Your task to perform on an android device: Clear the shopping cart on bestbuy.com. Add macbook to the cart on bestbuy.com, then select checkout. Image 0: 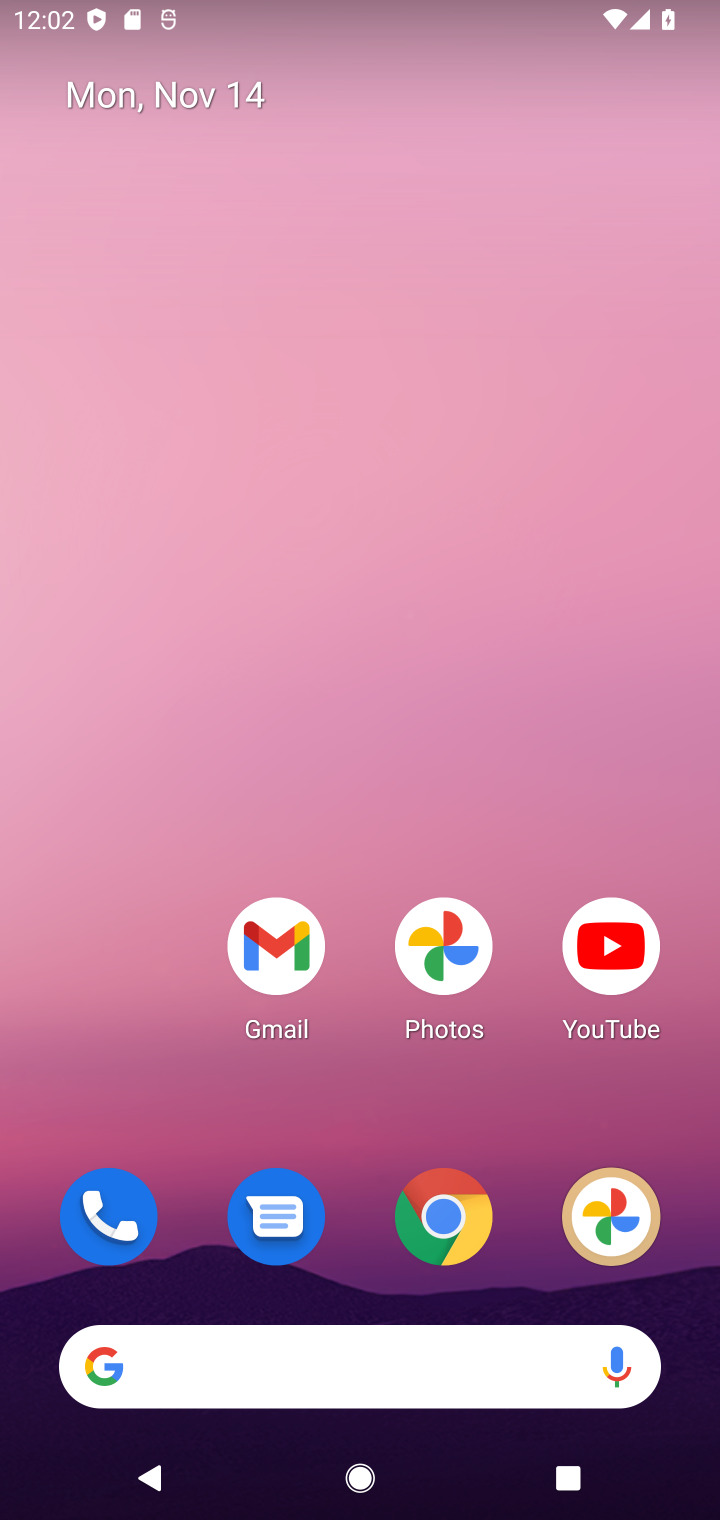
Step 0: click (444, 1223)
Your task to perform on an android device: Clear the shopping cart on bestbuy.com. Add macbook to the cart on bestbuy.com, then select checkout. Image 1: 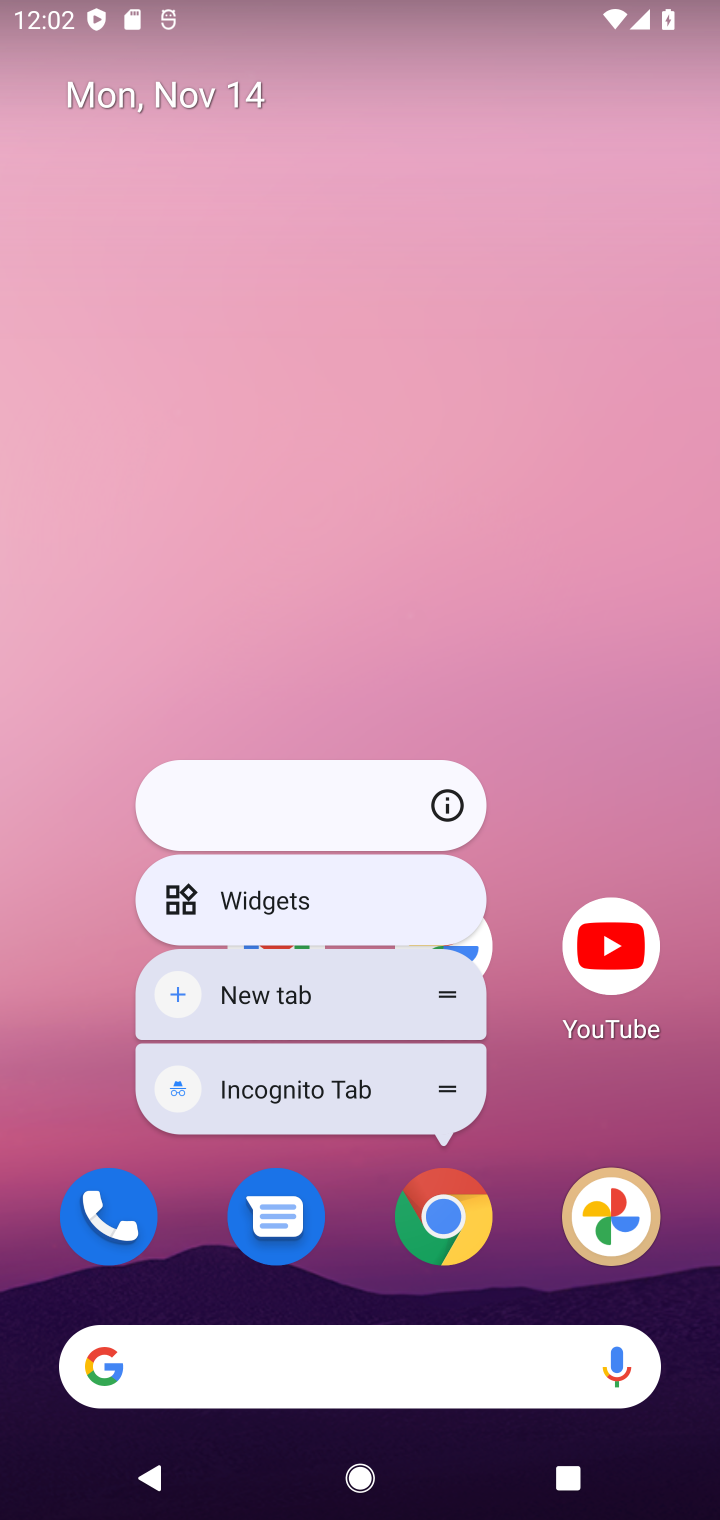
Step 1: click (457, 1235)
Your task to perform on an android device: Clear the shopping cart on bestbuy.com. Add macbook to the cart on bestbuy.com, then select checkout. Image 2: 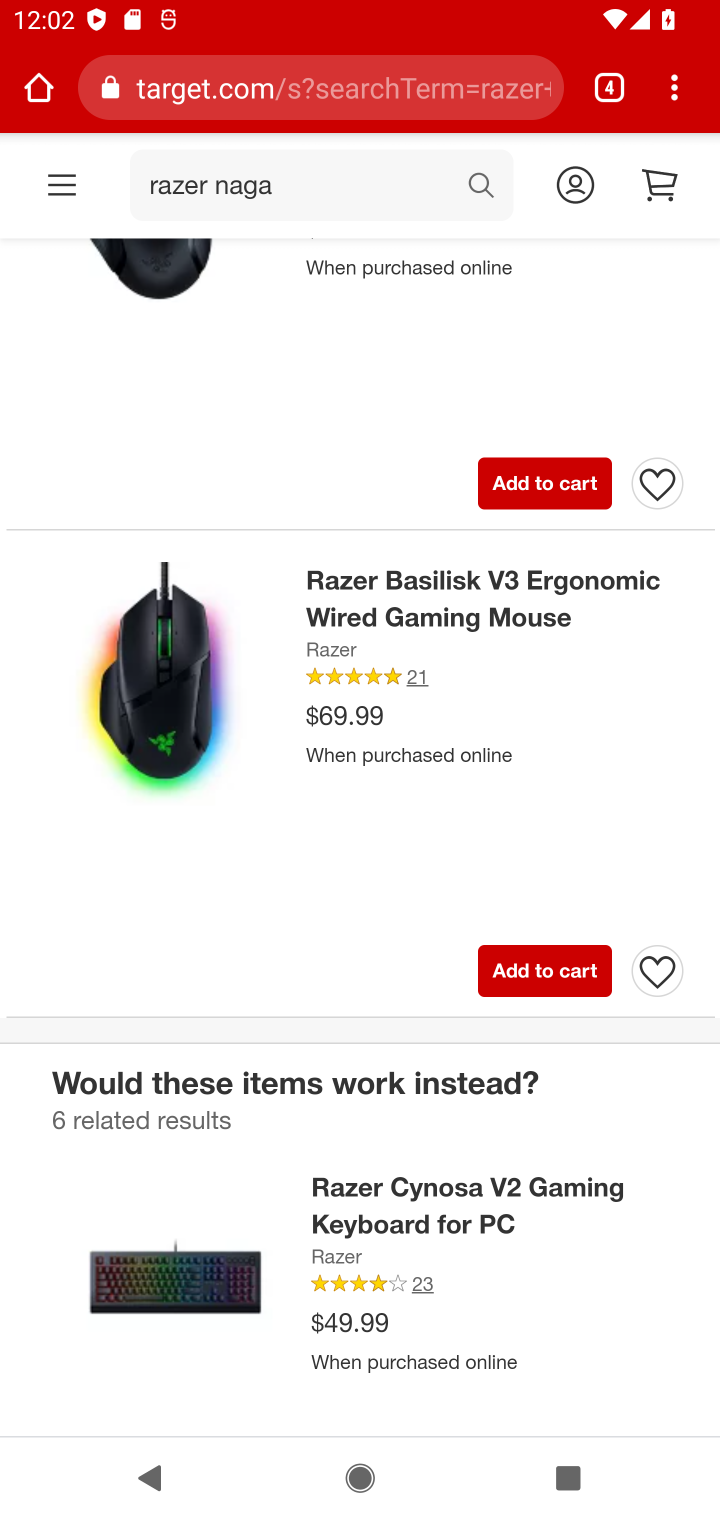
Step 2: click (617, 94)
Your task to perform on an android device: Clear the shopping cart on bestbuy.com. Add macbook to the cart on bestbuy.com, then select checkout. Image 3: 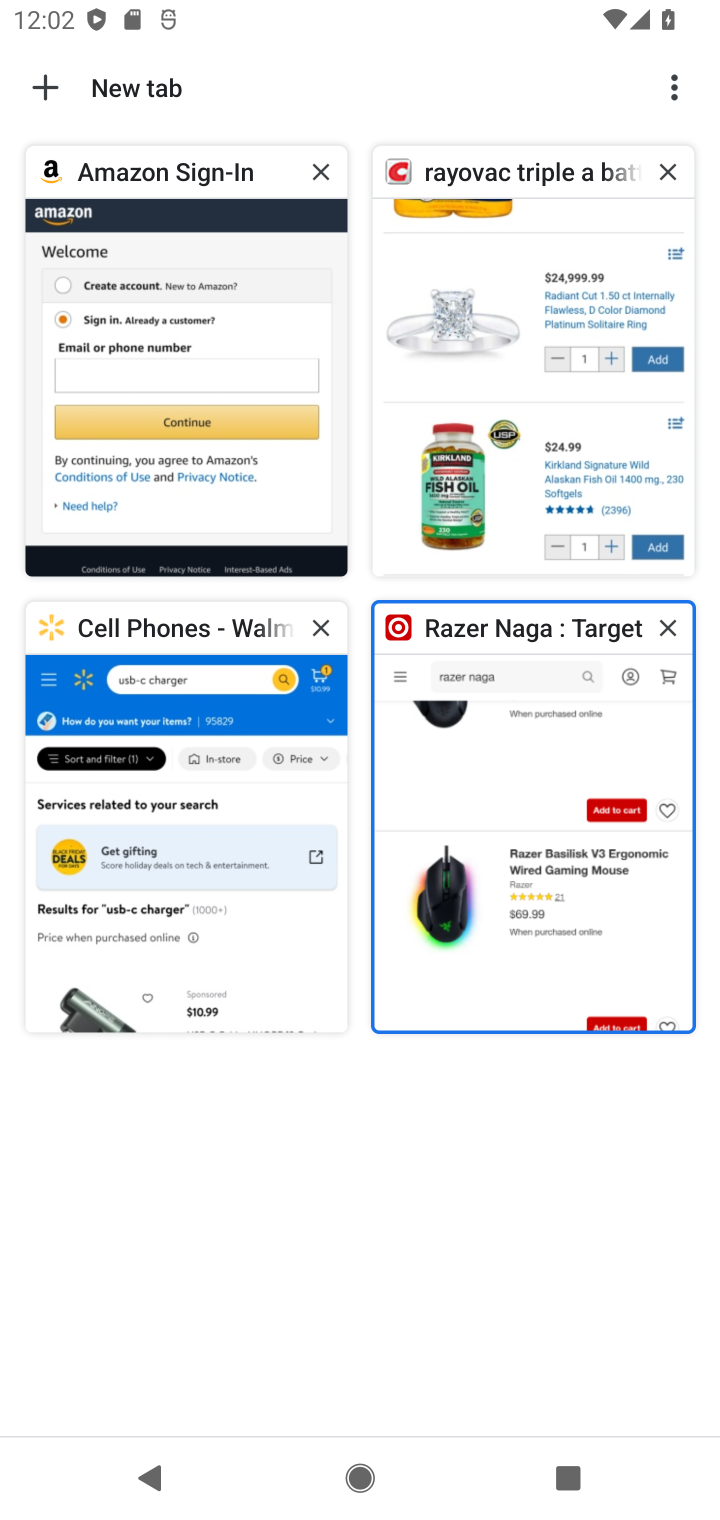
Step 3: click (44, 88)
Your task to perform on an android device: Clear the shopping cart on bestbuy.com. Add macbook to the cart on bestbuy.com, then select checkout. Image 4: 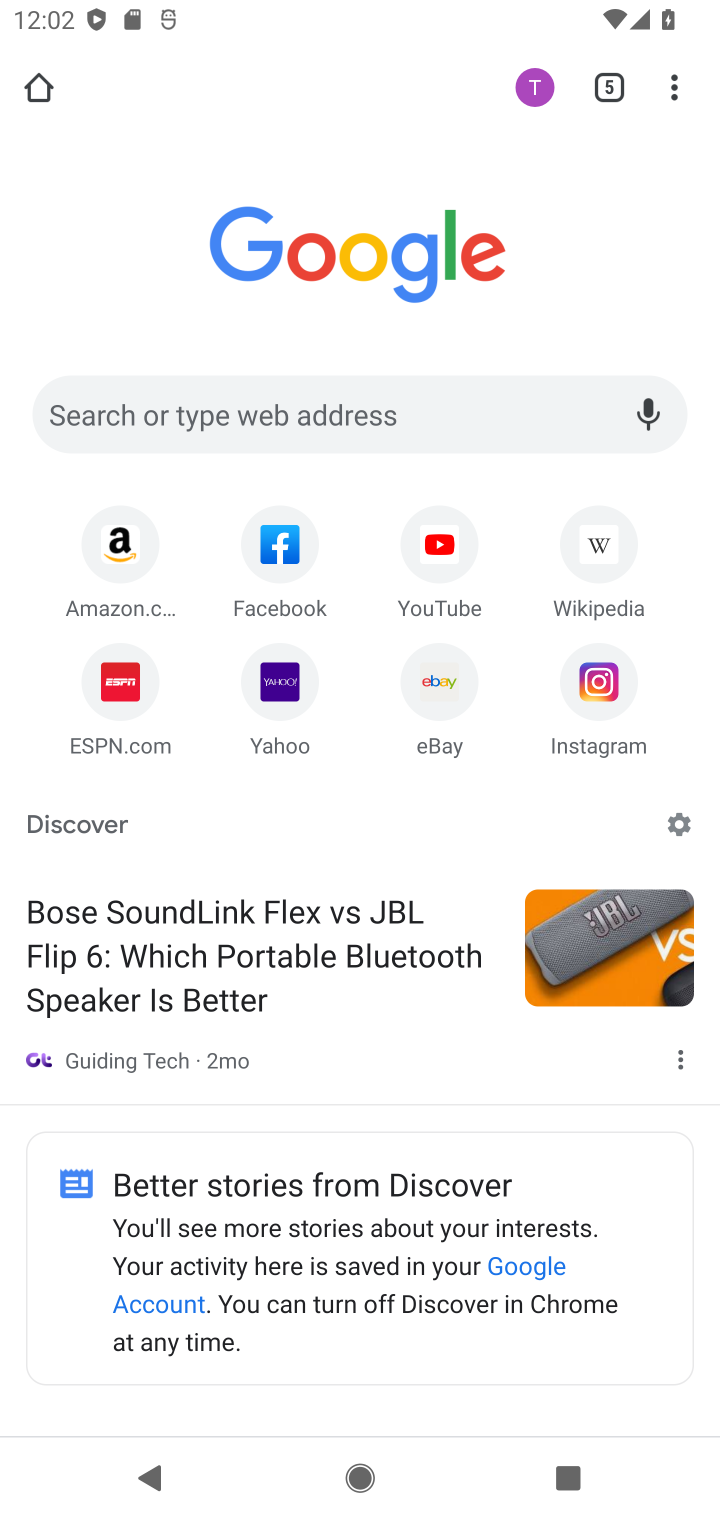
Step 4: click (136, 421)
Your task to perform on an android device: Clear the shopping cart on bestbuy.com. Add macbook to the cart on bestbuy.com, then select checkout. Image 5: 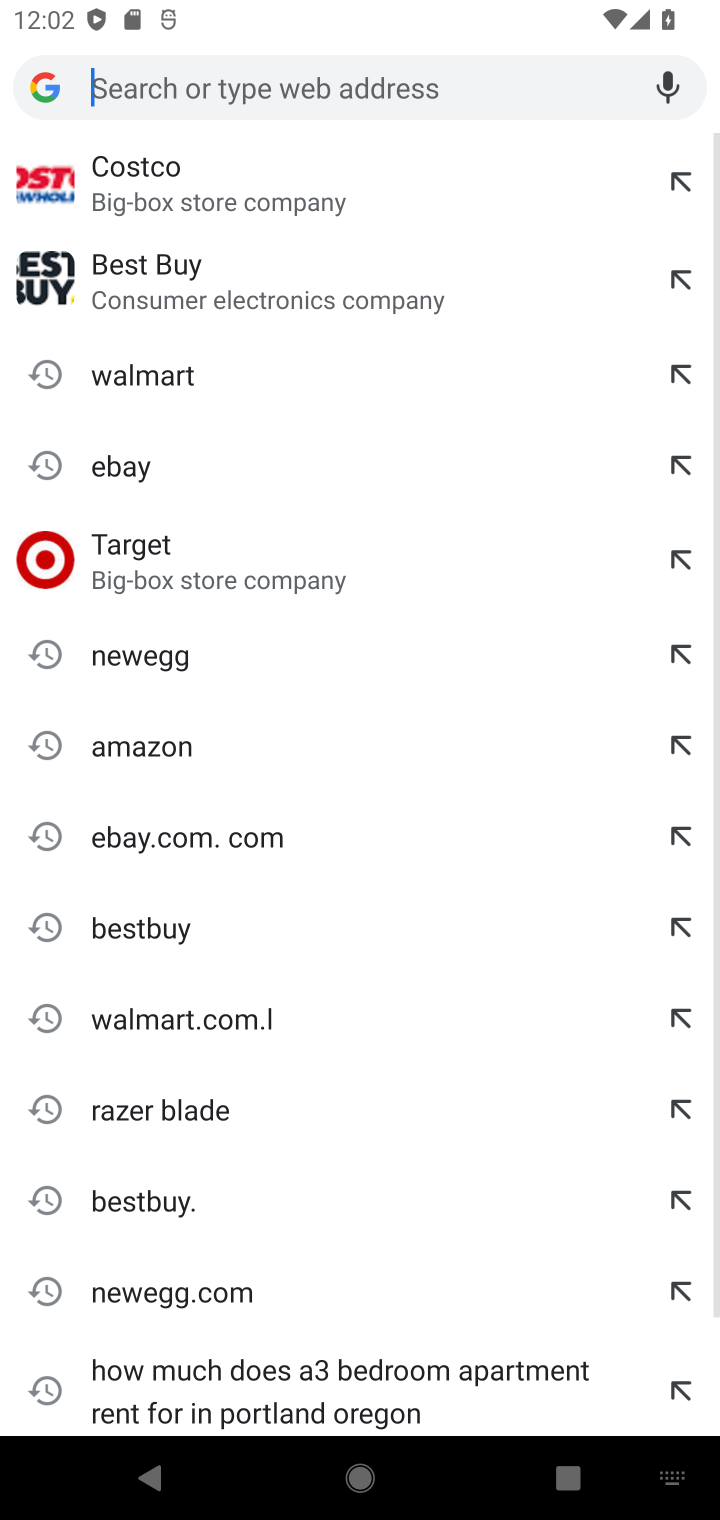
Step 5: click (149, 926)
Your task to perform on an android device: Clear the shopping cart on bestbuy.com. Add macbook to the cart on bestbuy.com, then select checkout. Image 6: 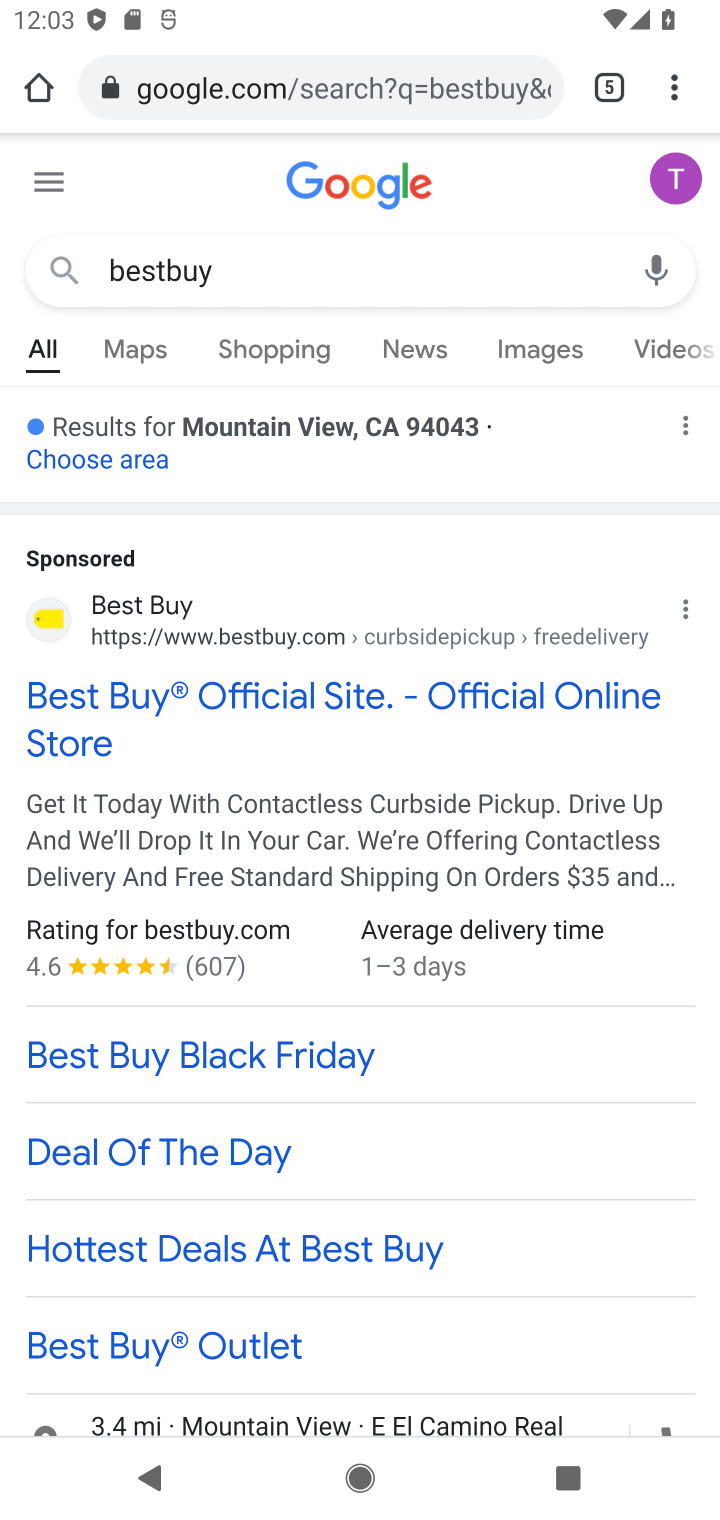
Step 6: click (250, 694)
Your task to perform on an android device: Clear the shopping cart on bestbuy.com. Add macbook to the cart on bestbuy.com, then select checkout. Image 7: 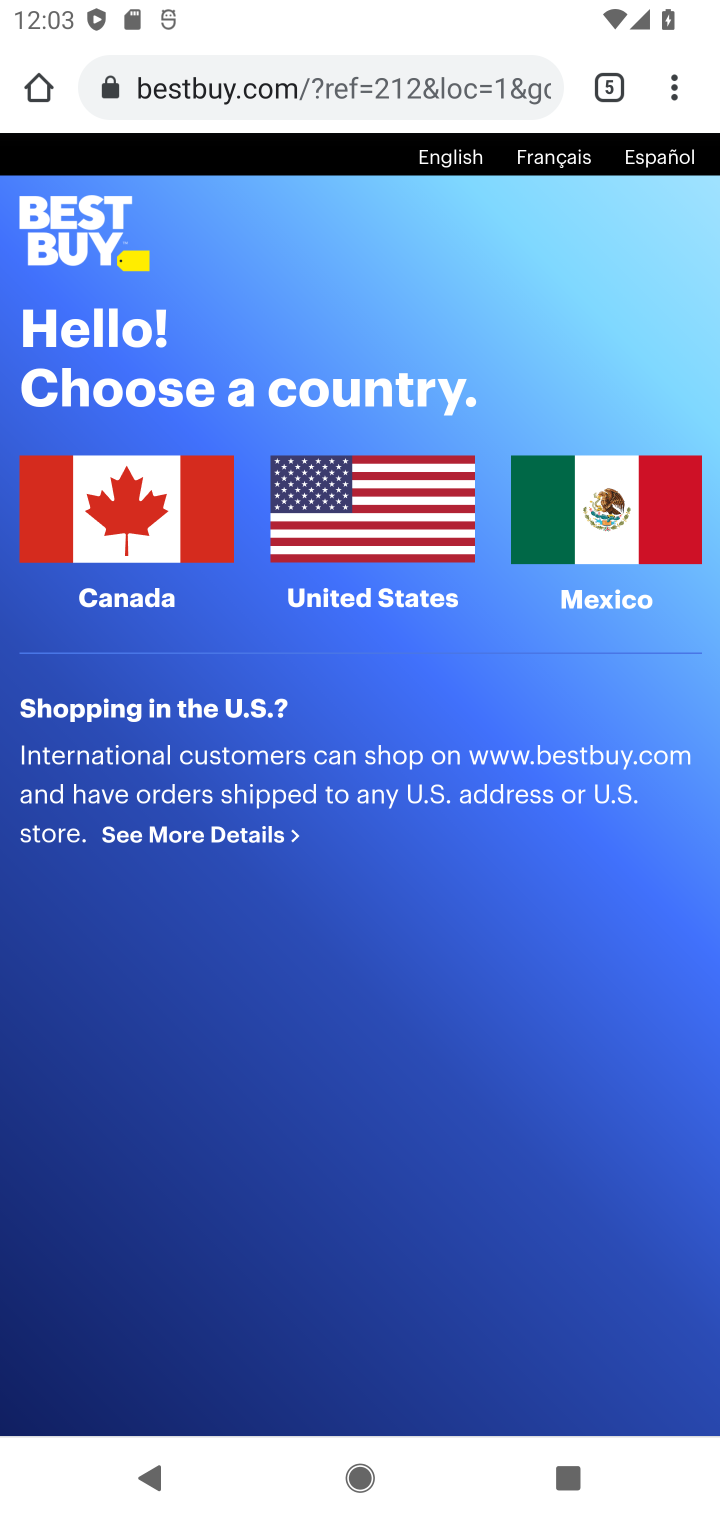
Step 7: click (376, 526)
Your task to perform on an android device: Clear the shopping cart on bestbuy.com. Add macbook to the cart on bestbuy.com, then select checkout. Image 8: 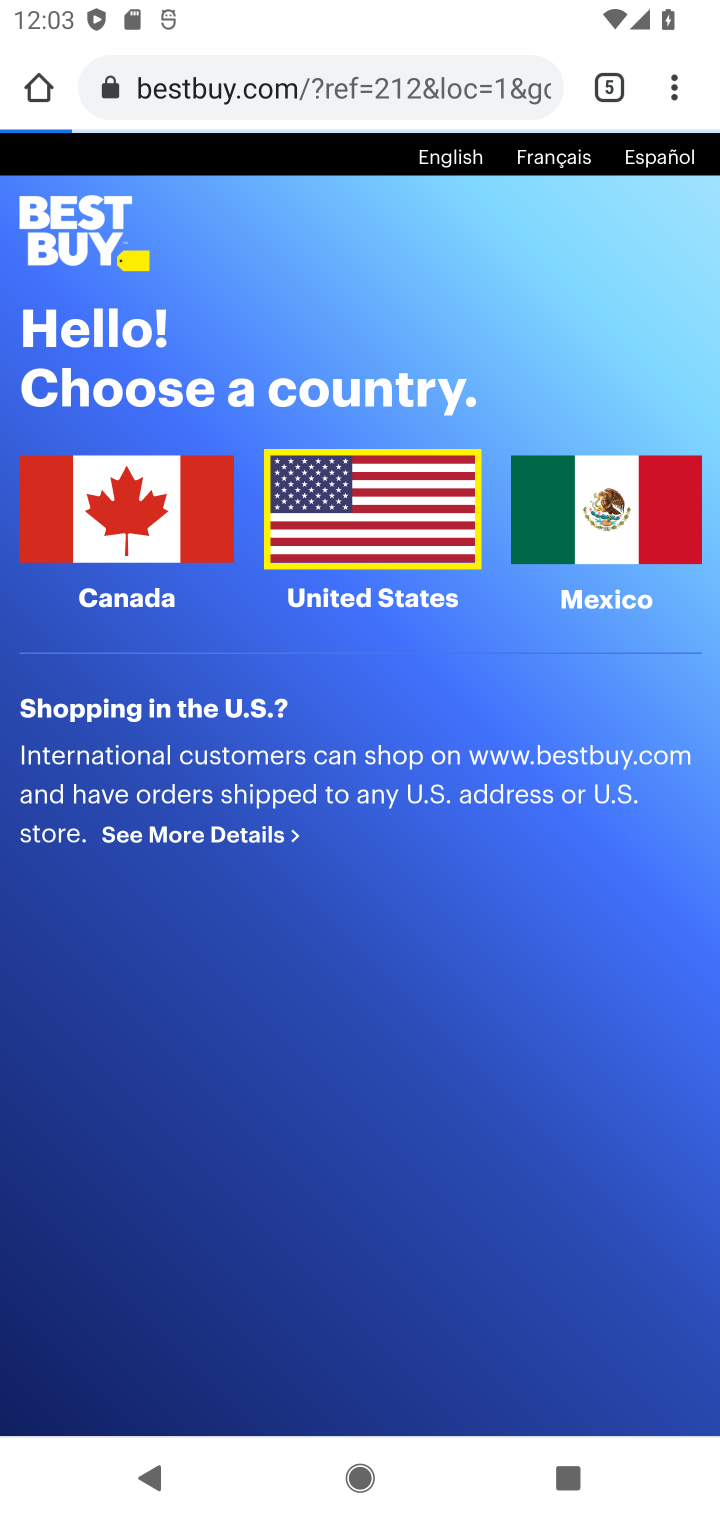
Step 8: click (378, 507)
Your task to perform on an android device: Clear the shopping cart on bestbuy.com. Add macbook to the cart on bestbuy.com, then select checkout. Image 9: 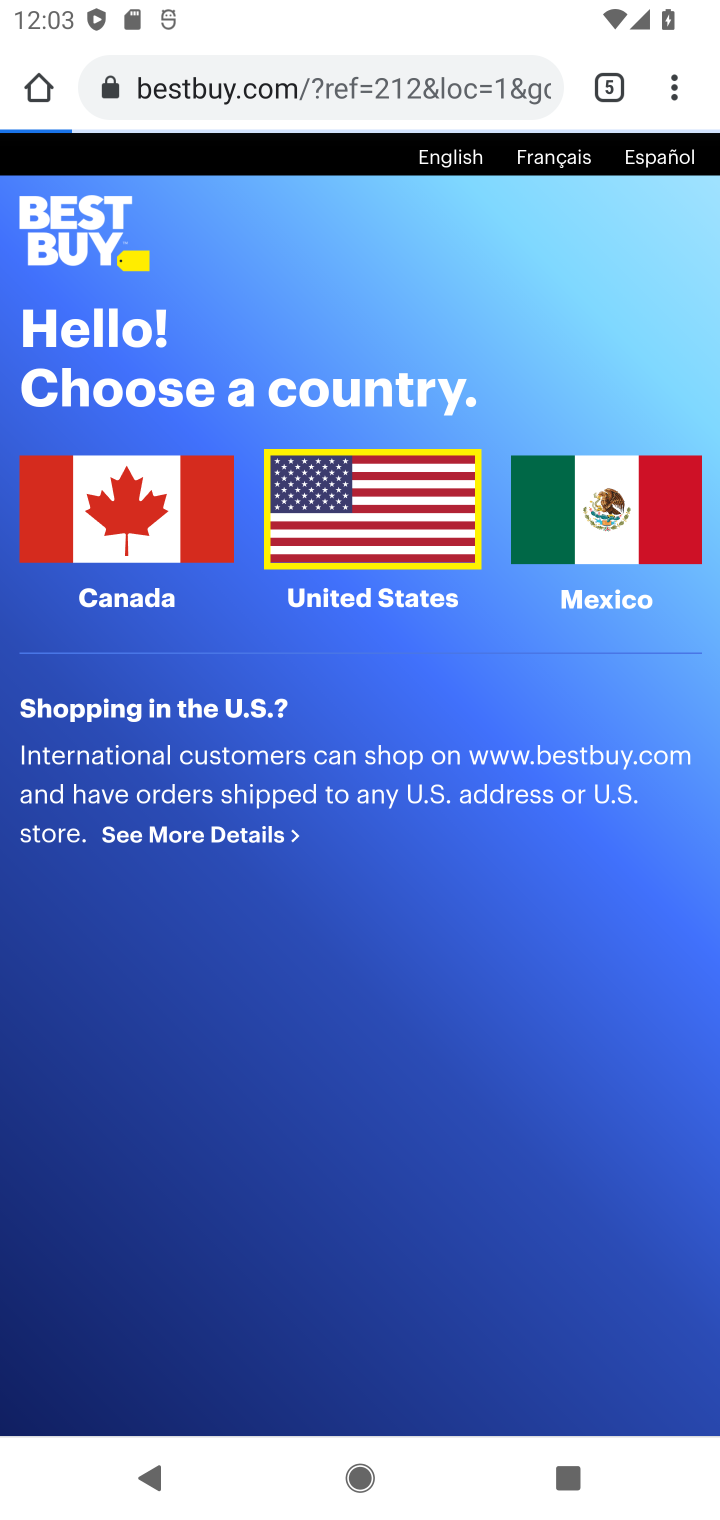
Step 9: click (378, 507)
Your task to perform on an android device: Clear the shopping cart on bestbuy.com. Add macbook to the cart on bestbuy.com, then select checkout. Image 10: 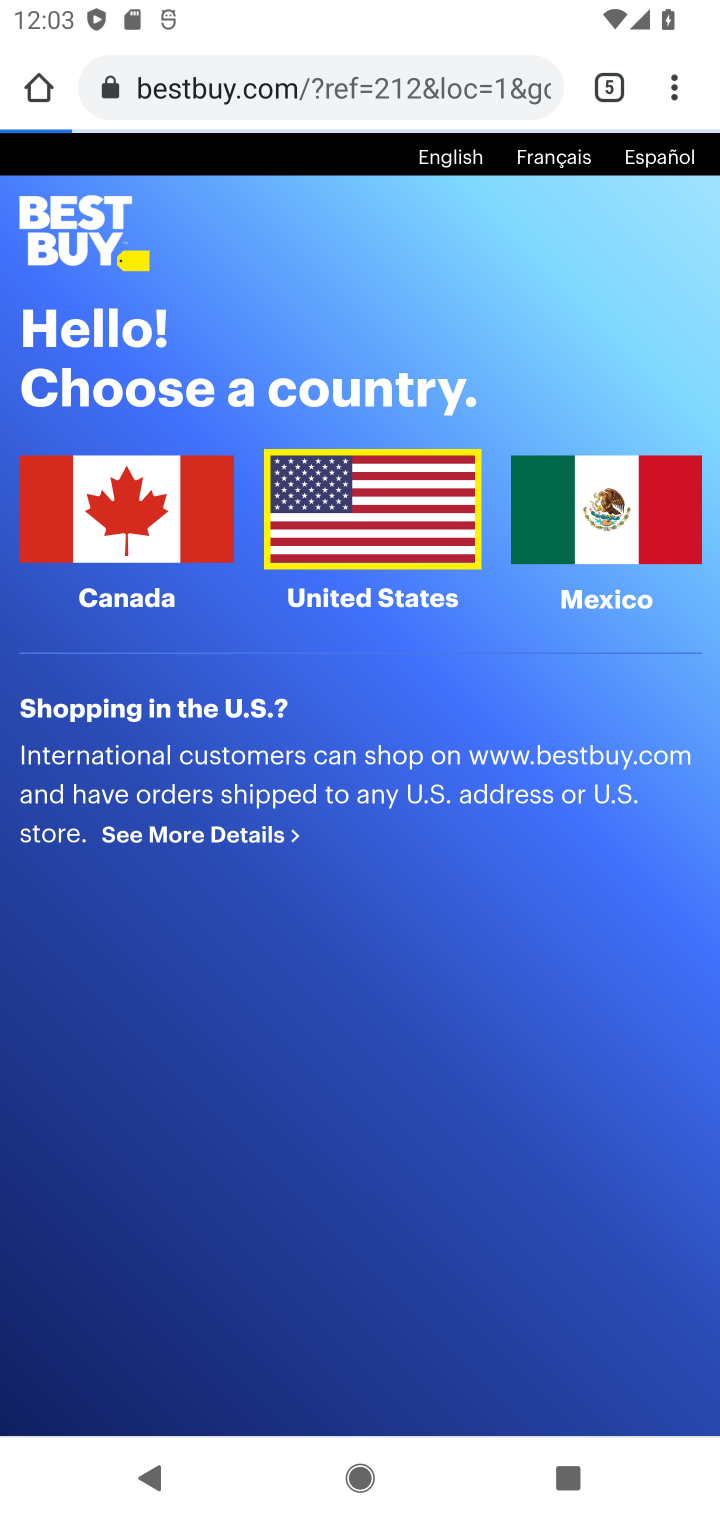
Step 10: click (378, 507)
Your task to perform on an android device: Clear the shopping cart on bestbuy.com. Add macbook to the cart on bestbuy.com, then select checkout. Image 11: 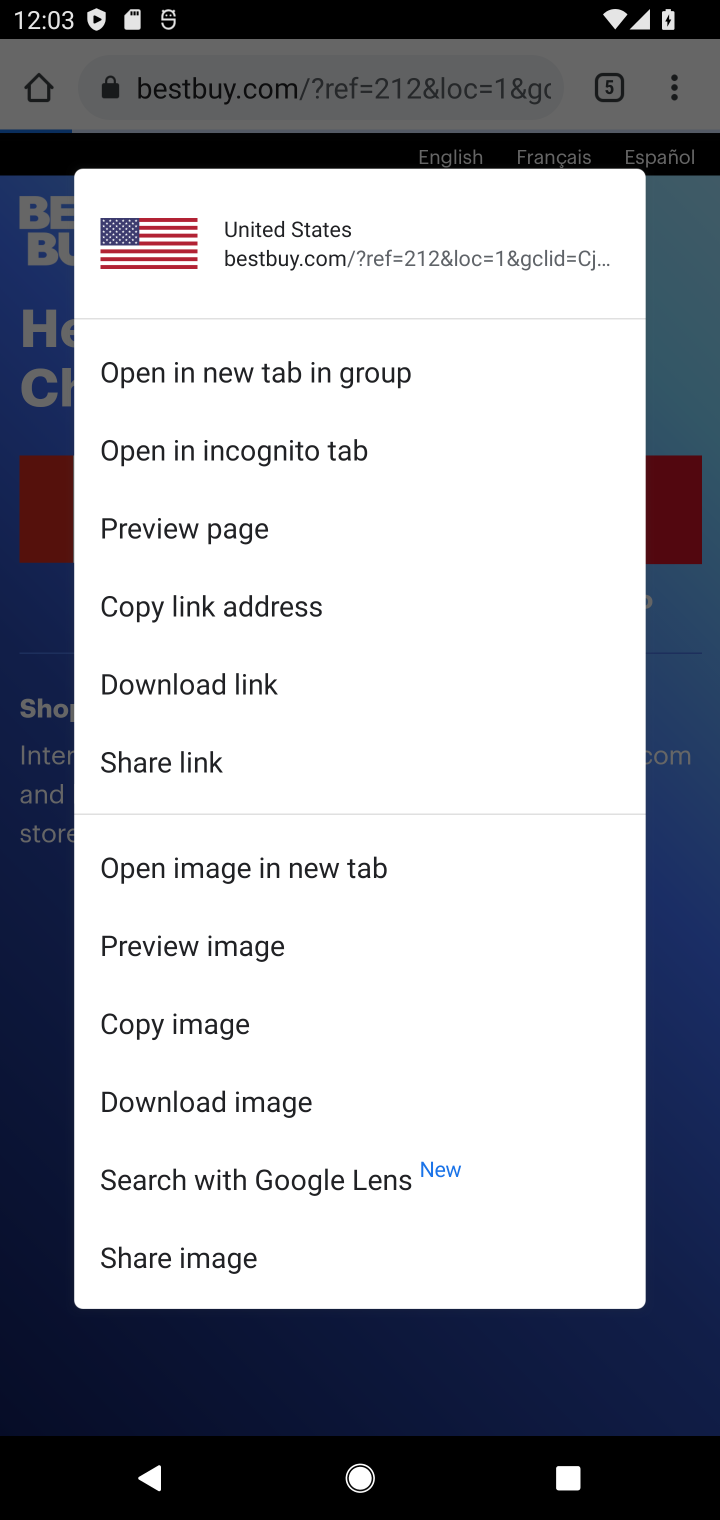
Step 11: click (682, 513)
Your task to perform on an android device: Clear the shopping cart on bestbuy.com. Add macbook to the cart on bestbuy.com, then select checkout. Image 12: 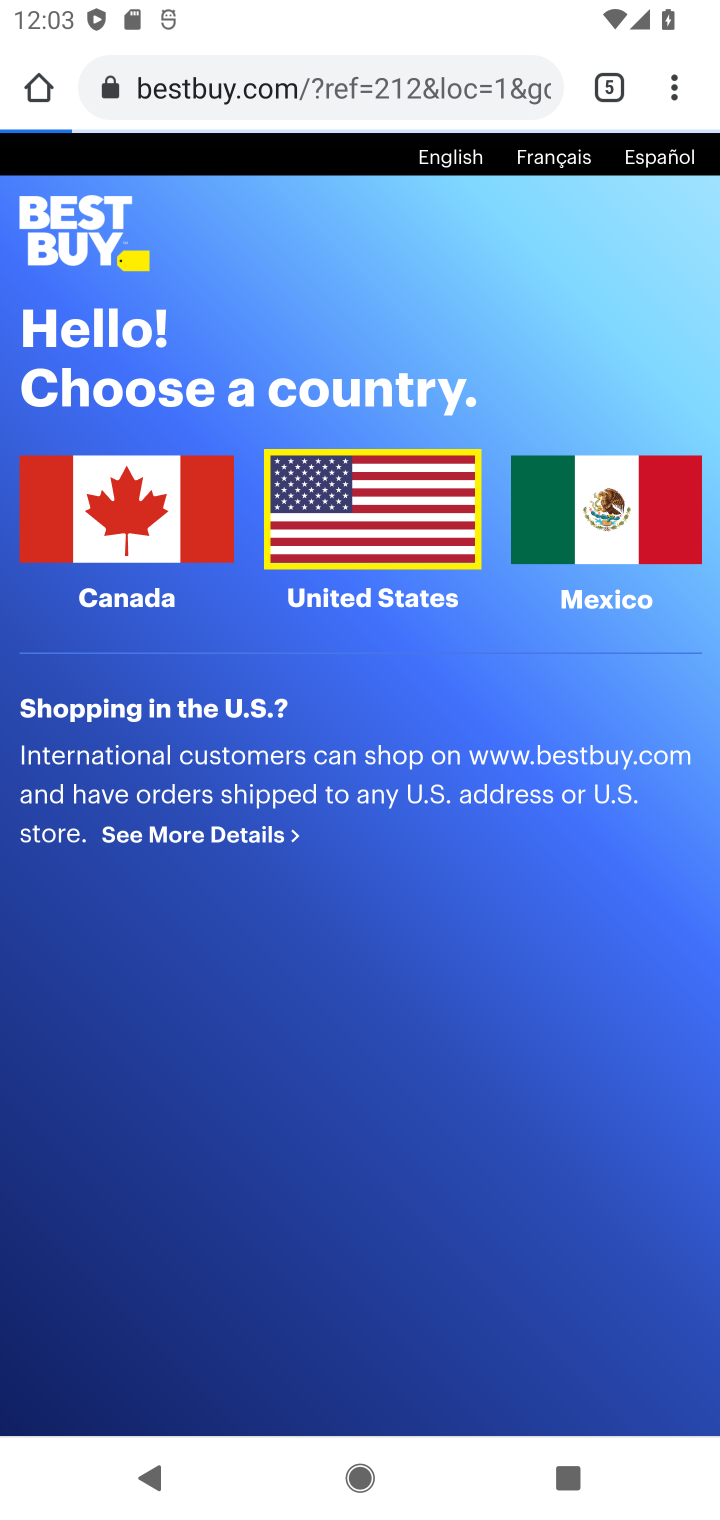
Step 12: click (406, 509)
Your task to perform on an android device: Clear the shopping cart on bestbuy.com. Add macbook to the cart on bestbuy.com, then select checkout. Image 13: 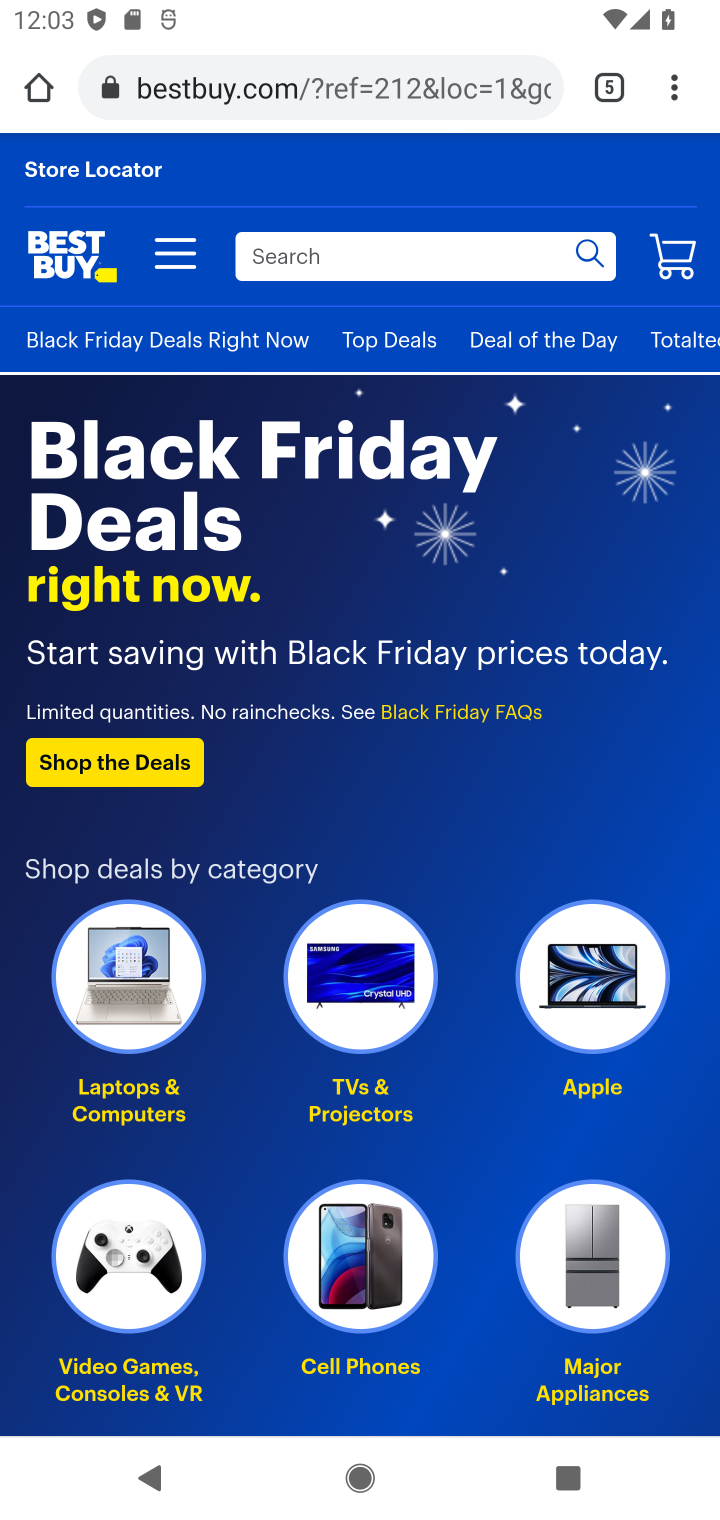
Step 13: click (482, 246)
Your task to perform on an android device: Clear the shopping cart on bestbuy.com. Add macbook to the cart on bestbuy.com, then select checkout. Image 14: 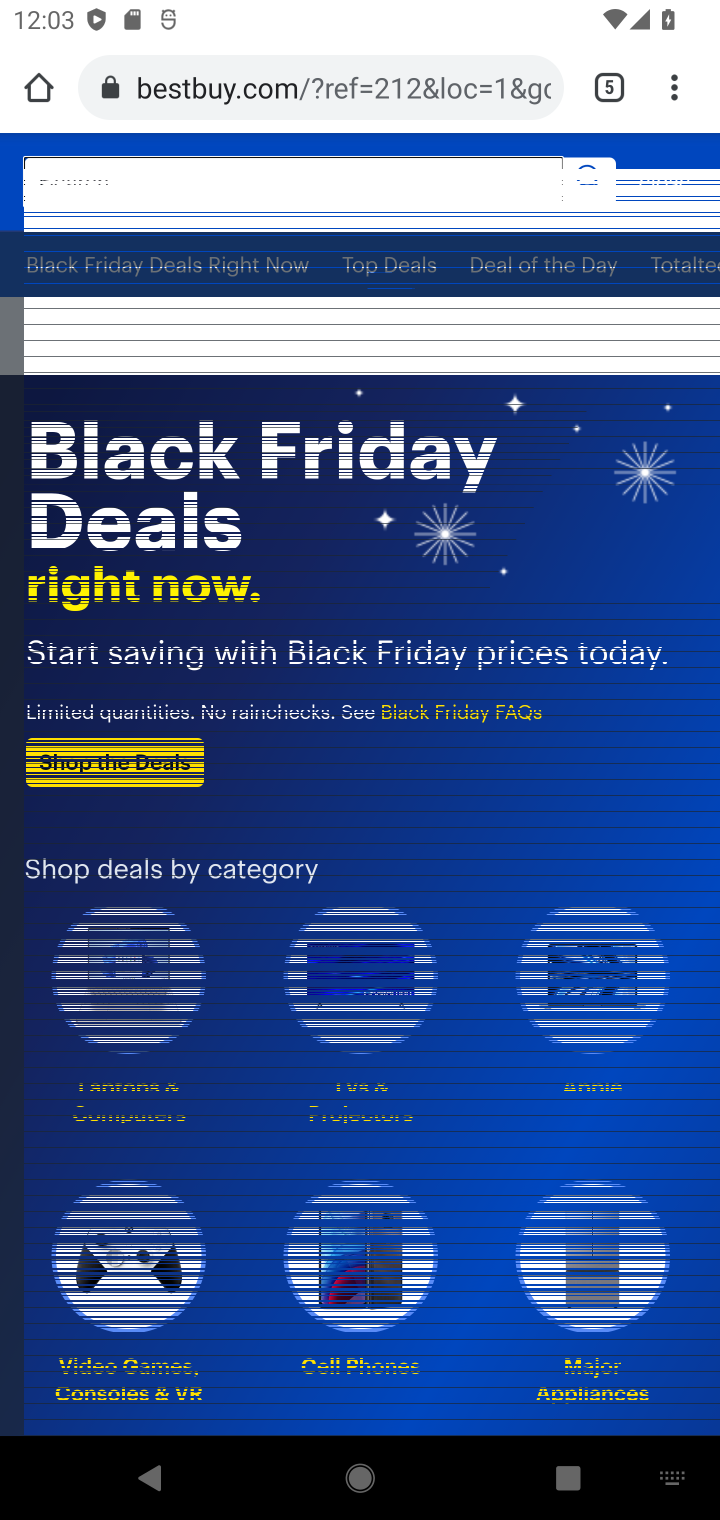
Step 14: type "macbook"
Your task to perform on an android device: Clear the shopping cart on bestbuy.com. Add macbook to the cart on bestbuy.com, then select checkout. Image 15: 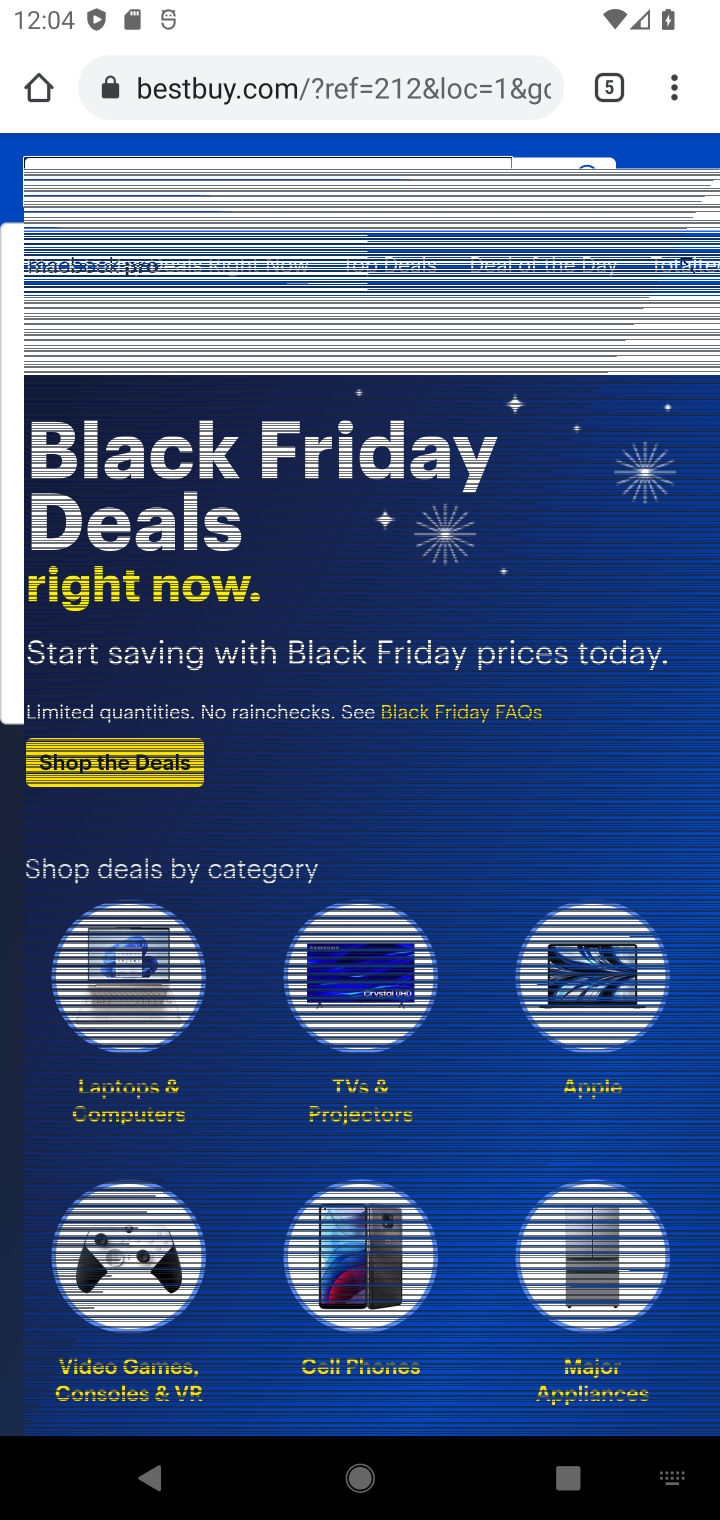
Step 15: click (587, 172)
Your task to perform on an android device: Clear the shopping cart on bestbuy.com. Add macbook to the cart on bestbuy.com, then select checkout. Image 16: 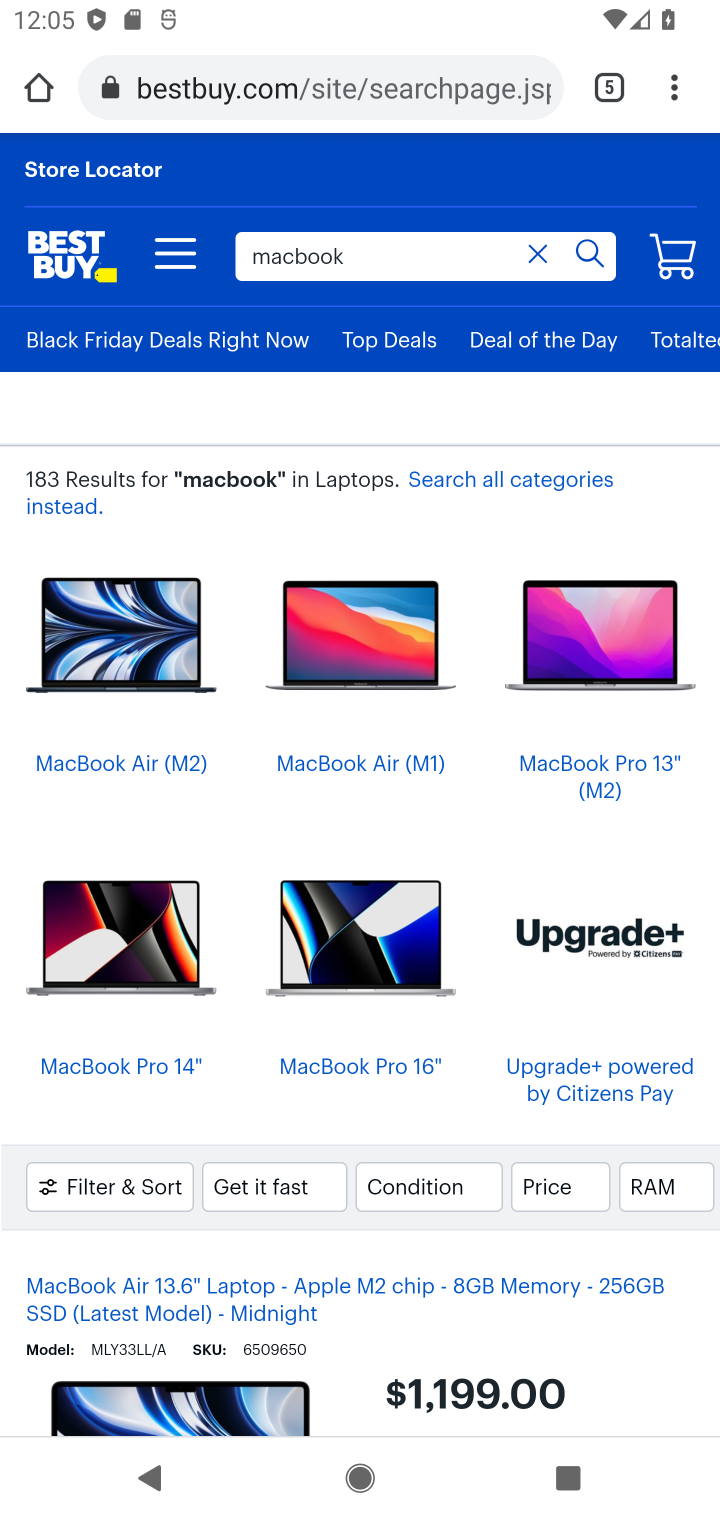
Step 16: drag from (398, 1350) to (688, 607)
Your task to perform on an android device: Clear the shopping cart on bestbuy.com. Add macbook to the cart on bestbuy.com, then select checkout. Image 17: 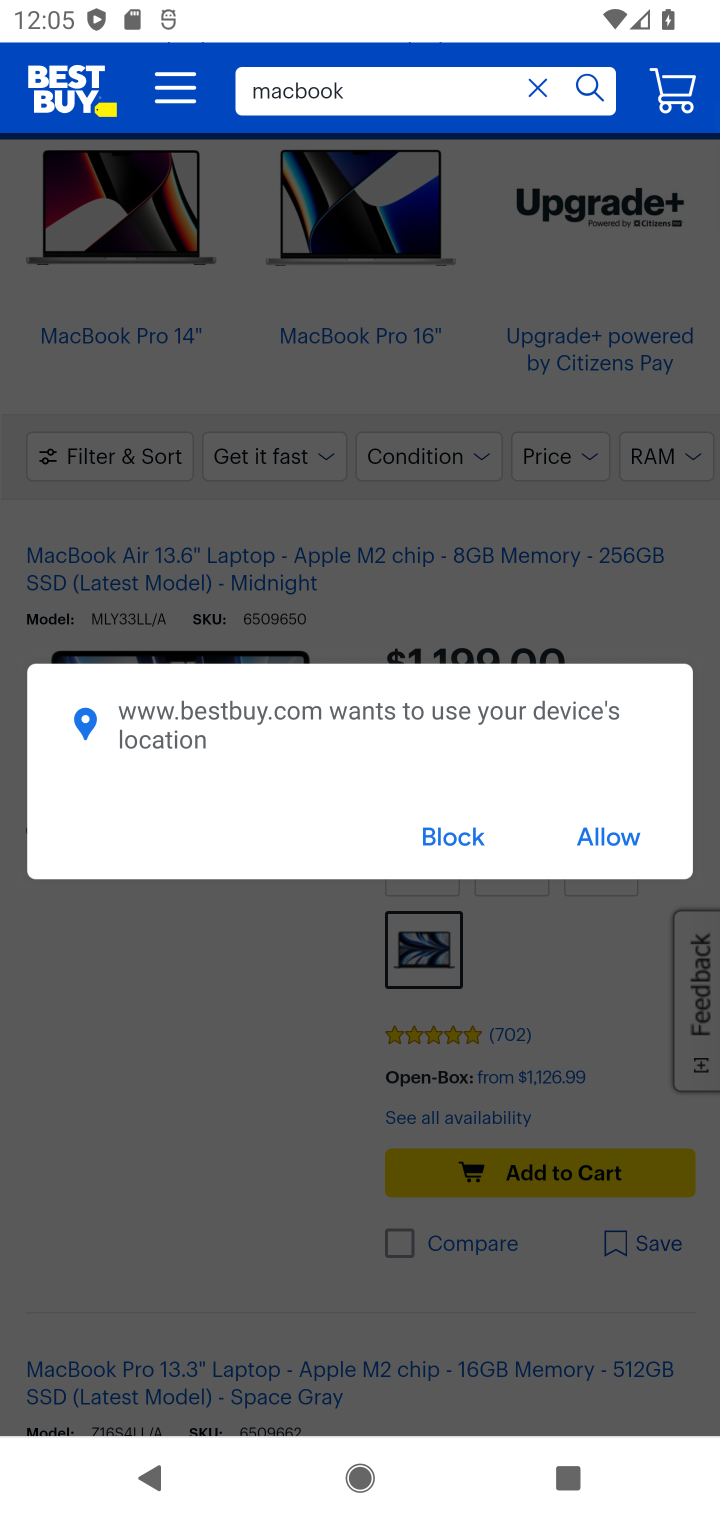
Step 17: click (461, 830)
Your task to perform on an android device: Clear the shopping cart on bestbuy.com. Add macbook to the cart on bestbuy.com, then select checkout. Image 18: 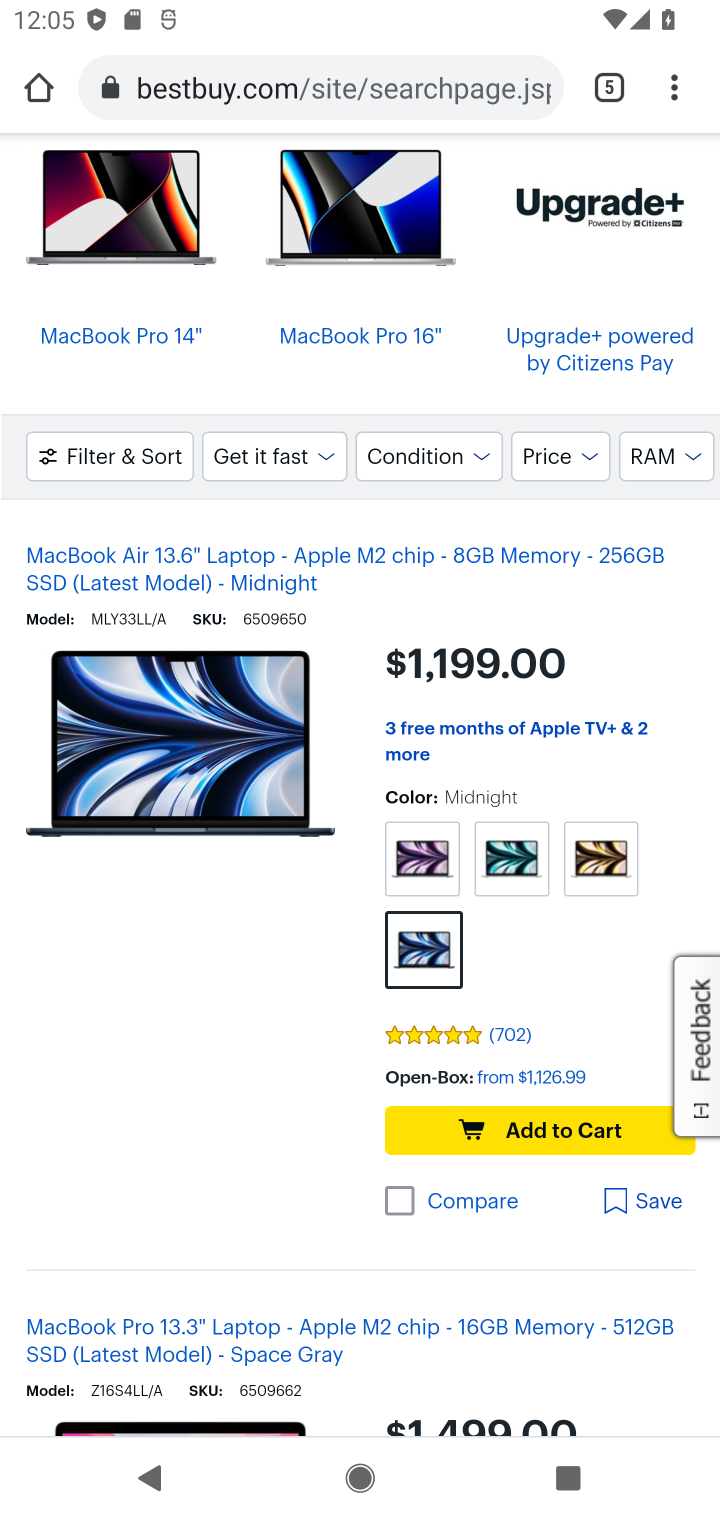
Step 18: click (522, 1180)
Your task to perform on an android device: Clear the shopping cart on bestbuy.com. Add macbook to the cart on bestbuy.com, then select checkout. Image 19: 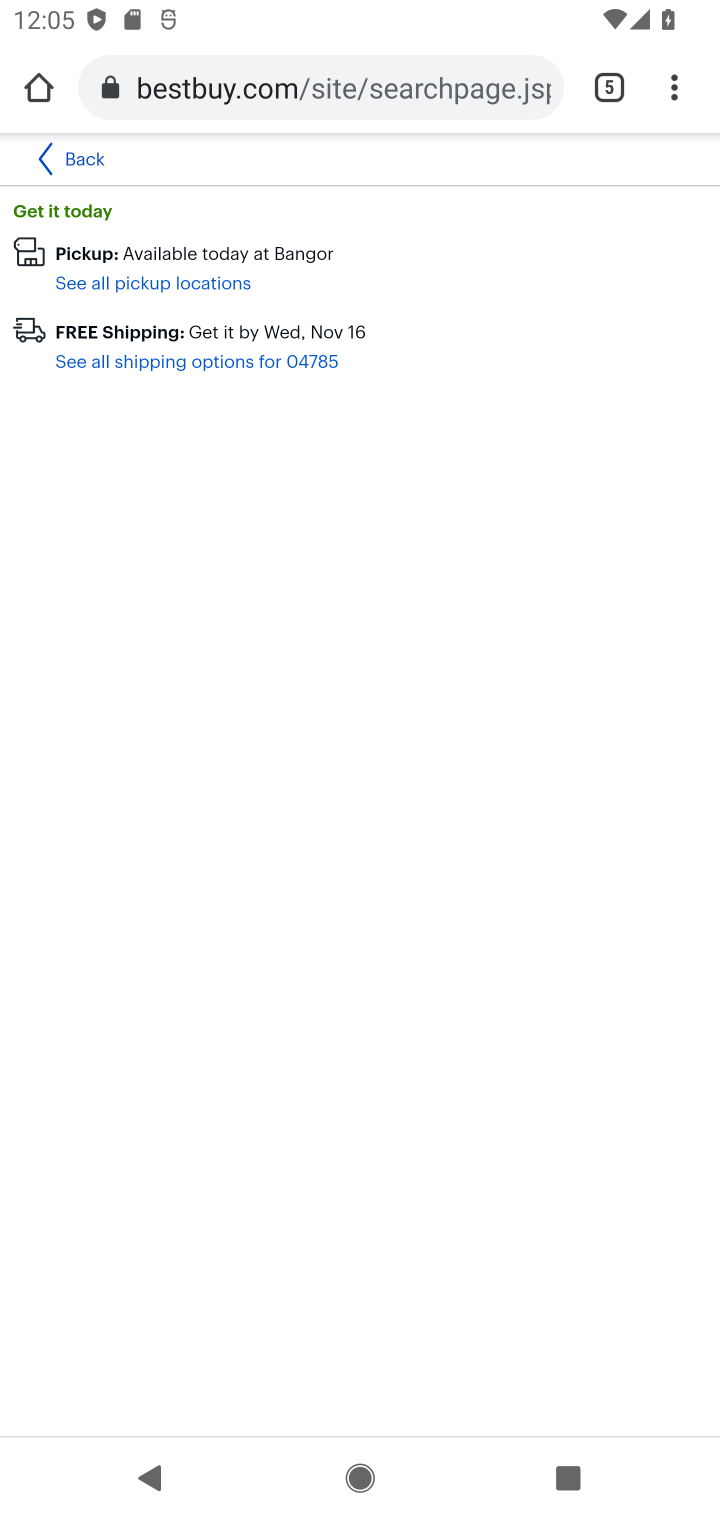
Step 19: drag from (633, 709) to (413, 1515)
Your task to perform on an android device: Clear the shopping cart on bestbuy.com. Add macbook to the cart on bestbuy.com, then select checkout. Image 20: 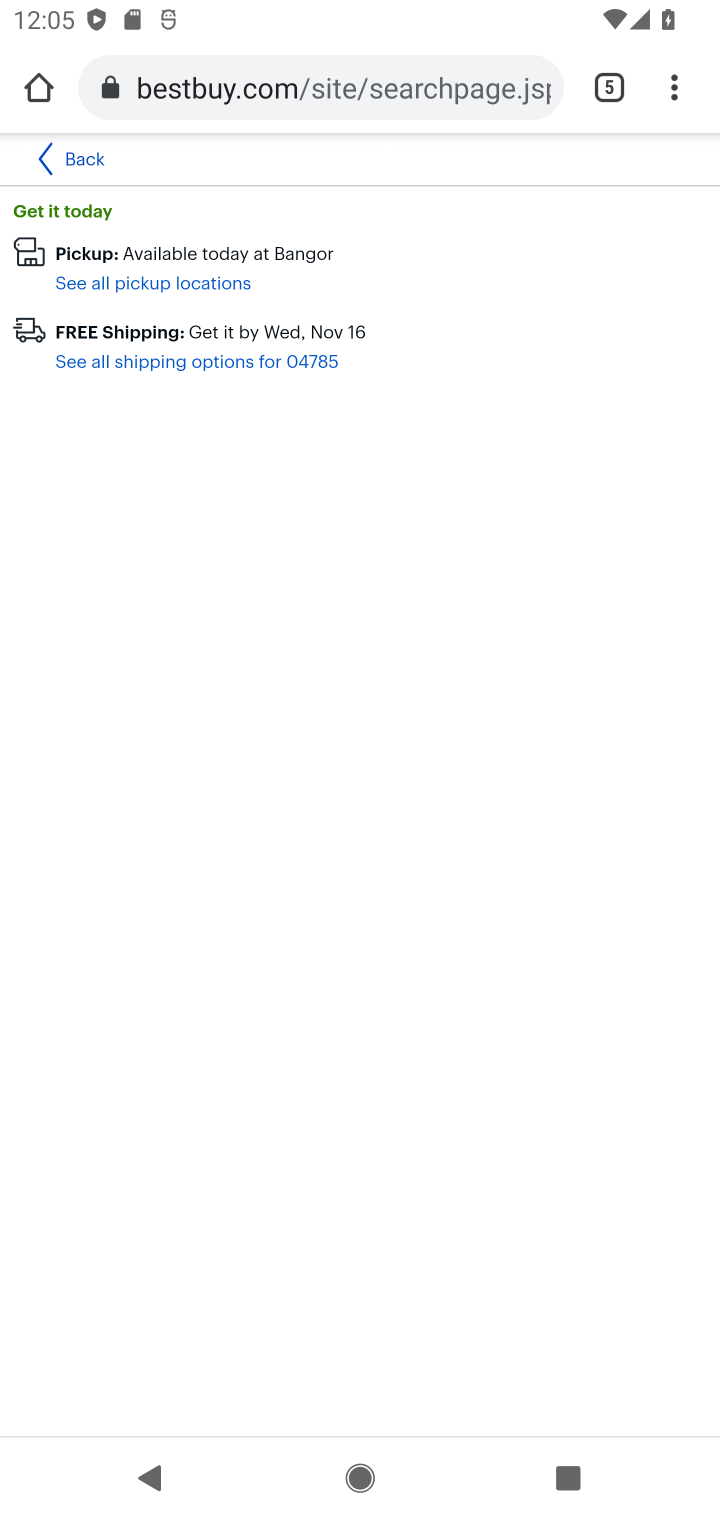
Step 20: click (83, 161)
Your task to perform on an android device: Clear the shopping cart on bestbuy.com. Add macbook to the cart on bestbuy.com, then select checkout. Image 21: 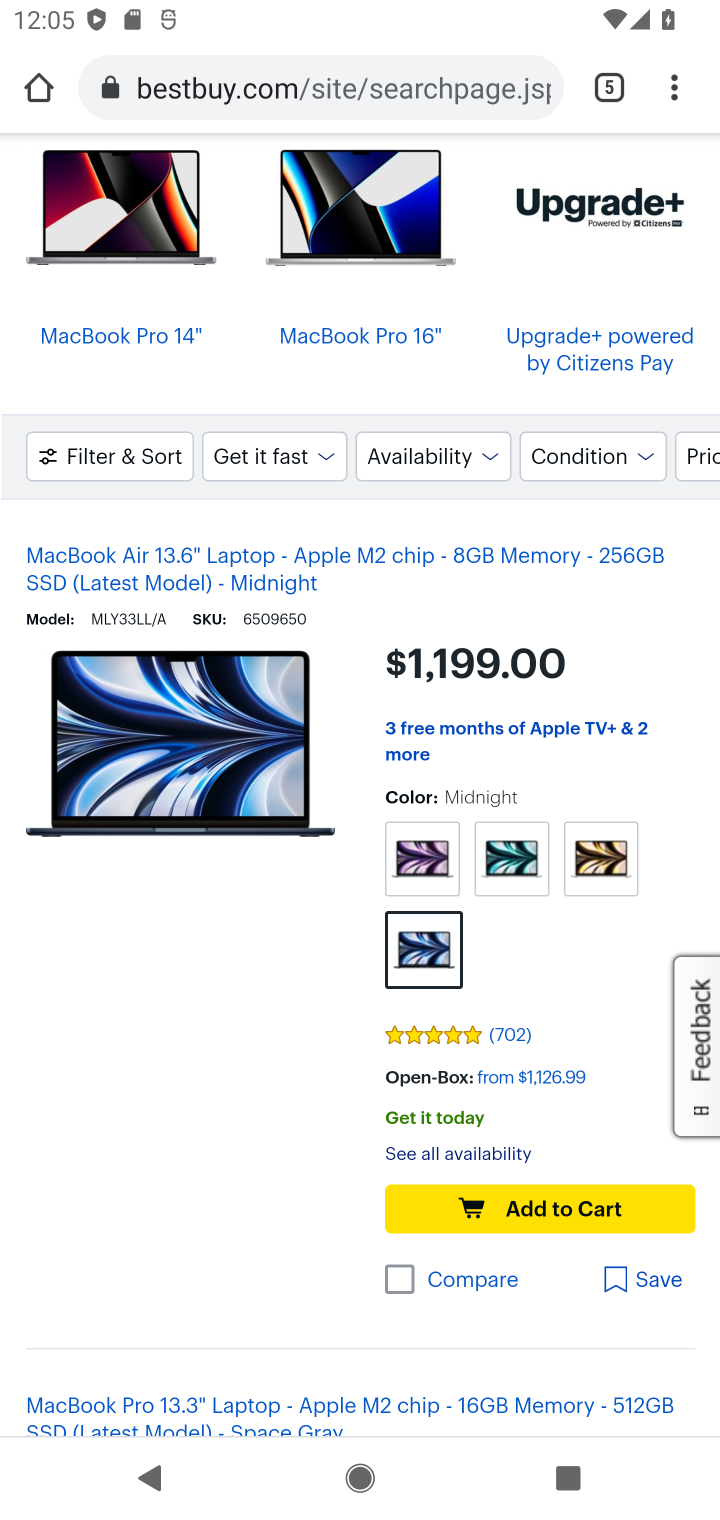
Step 21: drag from (603, 886) to (686, 1429)
Your task to perform on an android device: Clear the shopping cart on bestbuy.com. Add macbook to the cart on bestbuy.com, then select checkout. Image 22: 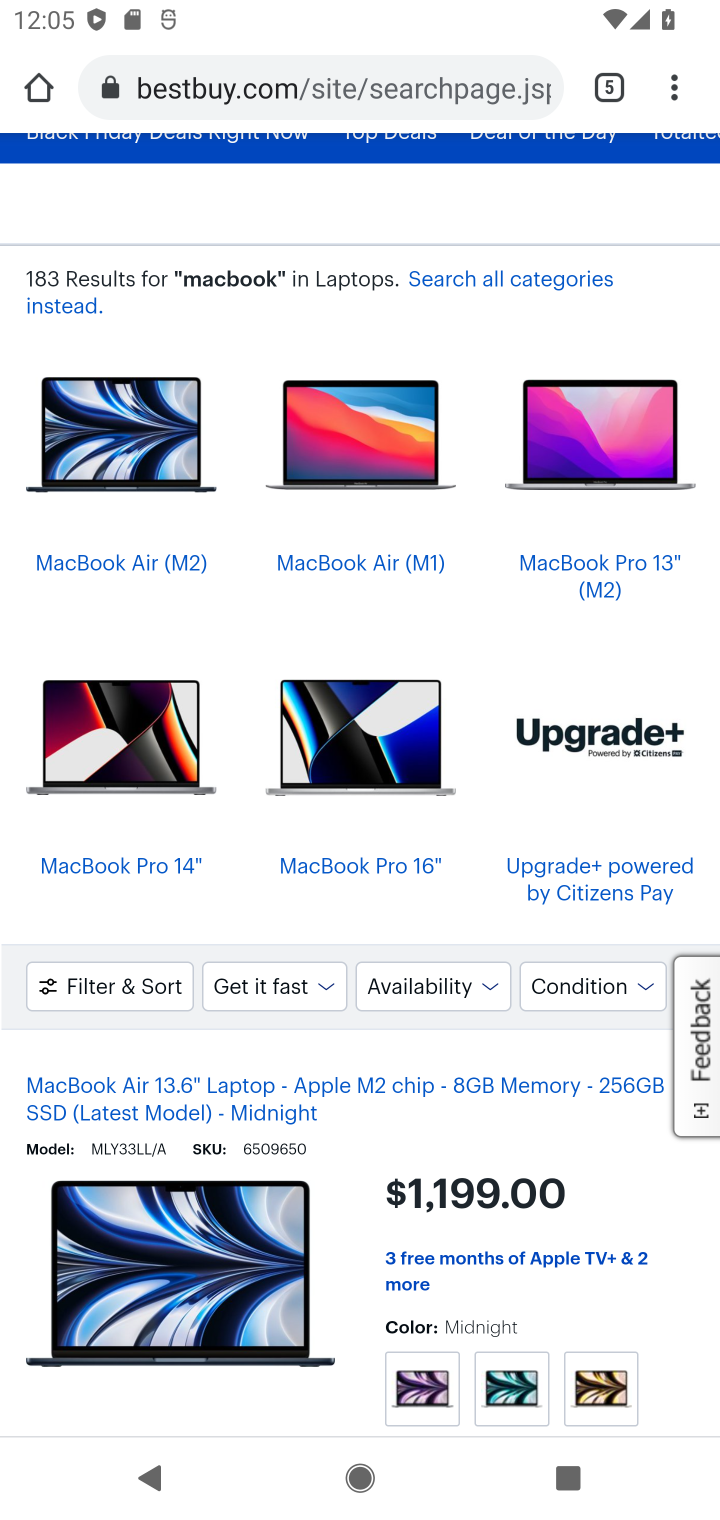
Step 22: drag from (533, 1215) to (644, 448)
Your task to perform on an android device: Clear the shopping cart on bestbuy.com. Add macbook to the cart on bestbuy.com, then select checkout. Image 23: 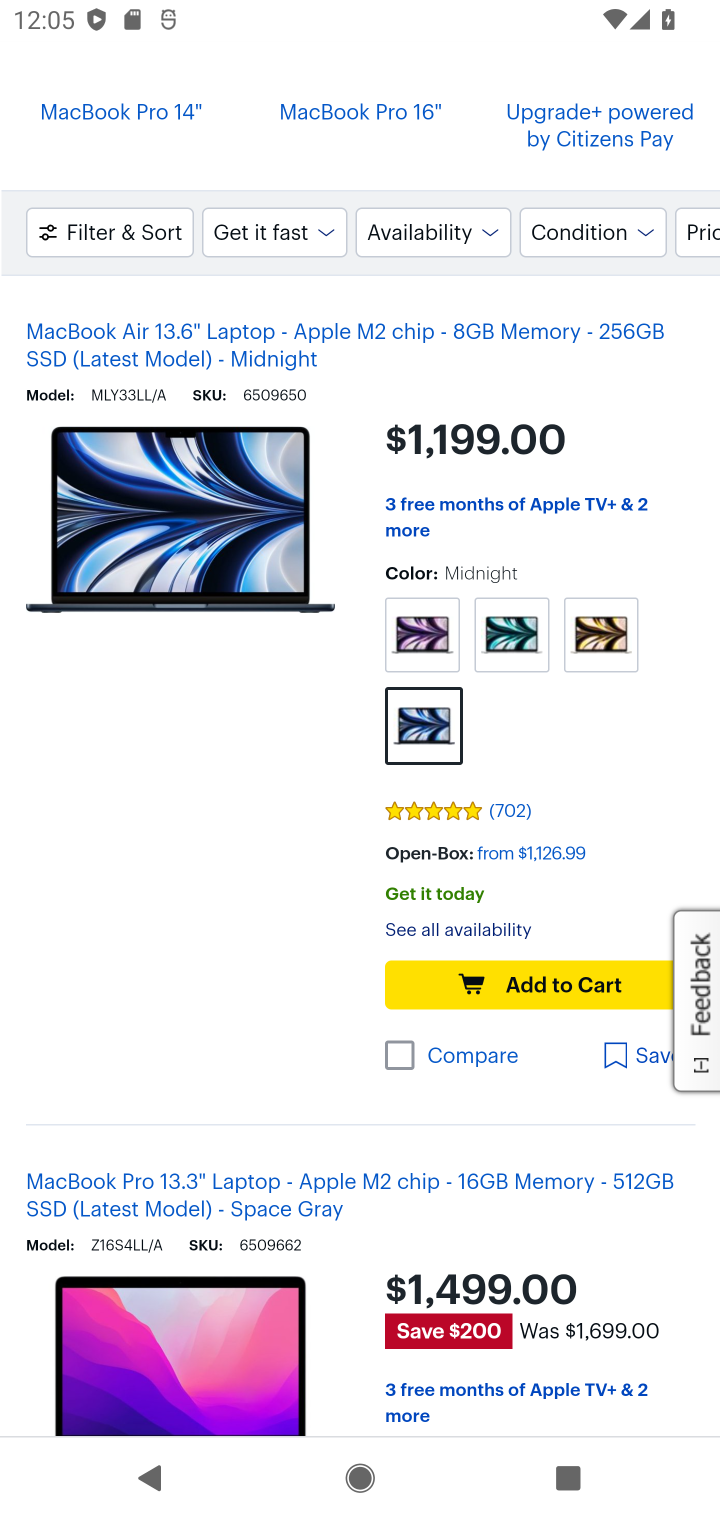
Step 23: click (556, 975)
Your task to perform on an android device: Clear the shopping cart on bestbuy.com. Add macbook to the cart on bestbuy.com, then select checkout. Image 24: 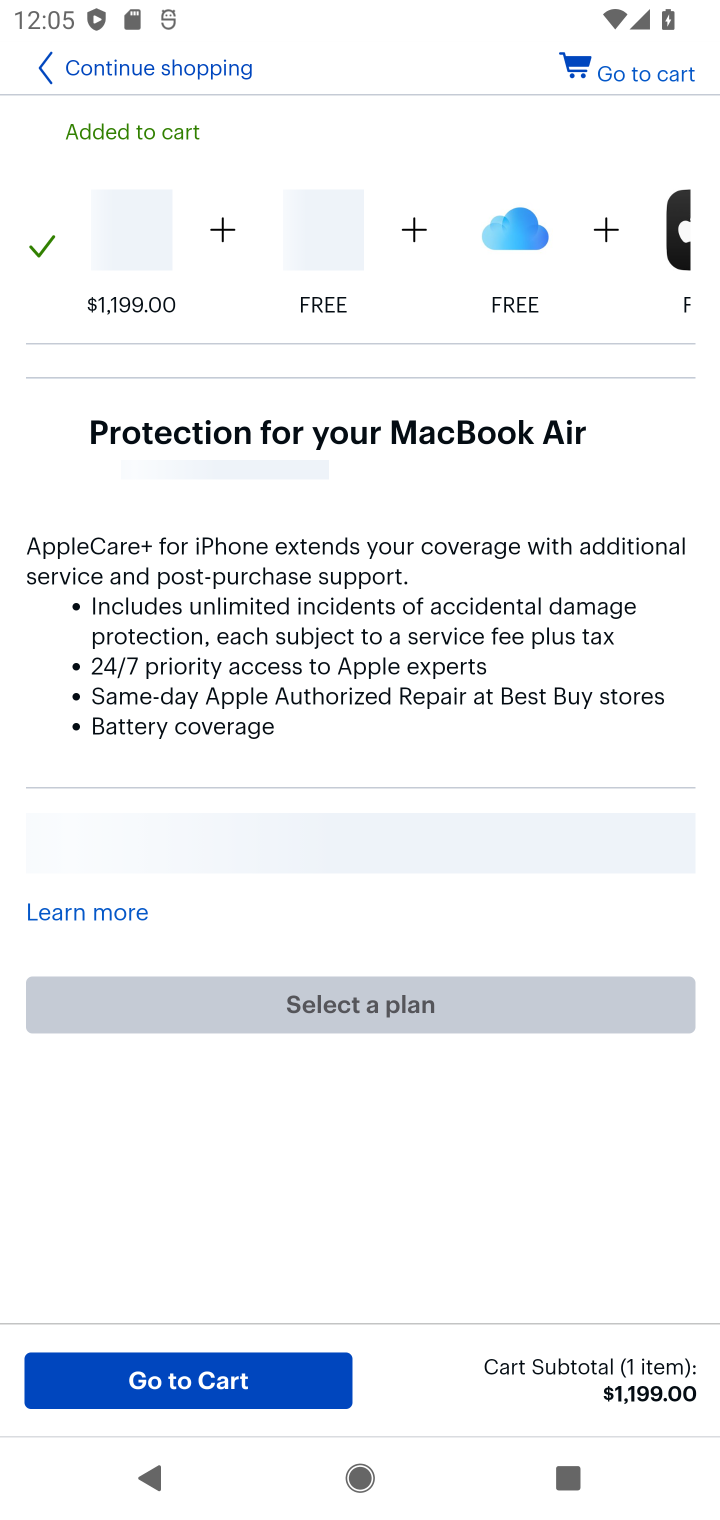
Step 24: click (138, 1378)
Your task to perform on an android device: Clear the shopping cart on bestbuy.com. Add macbook to the cart on bestbuy.com, then select checkout. Image 25: 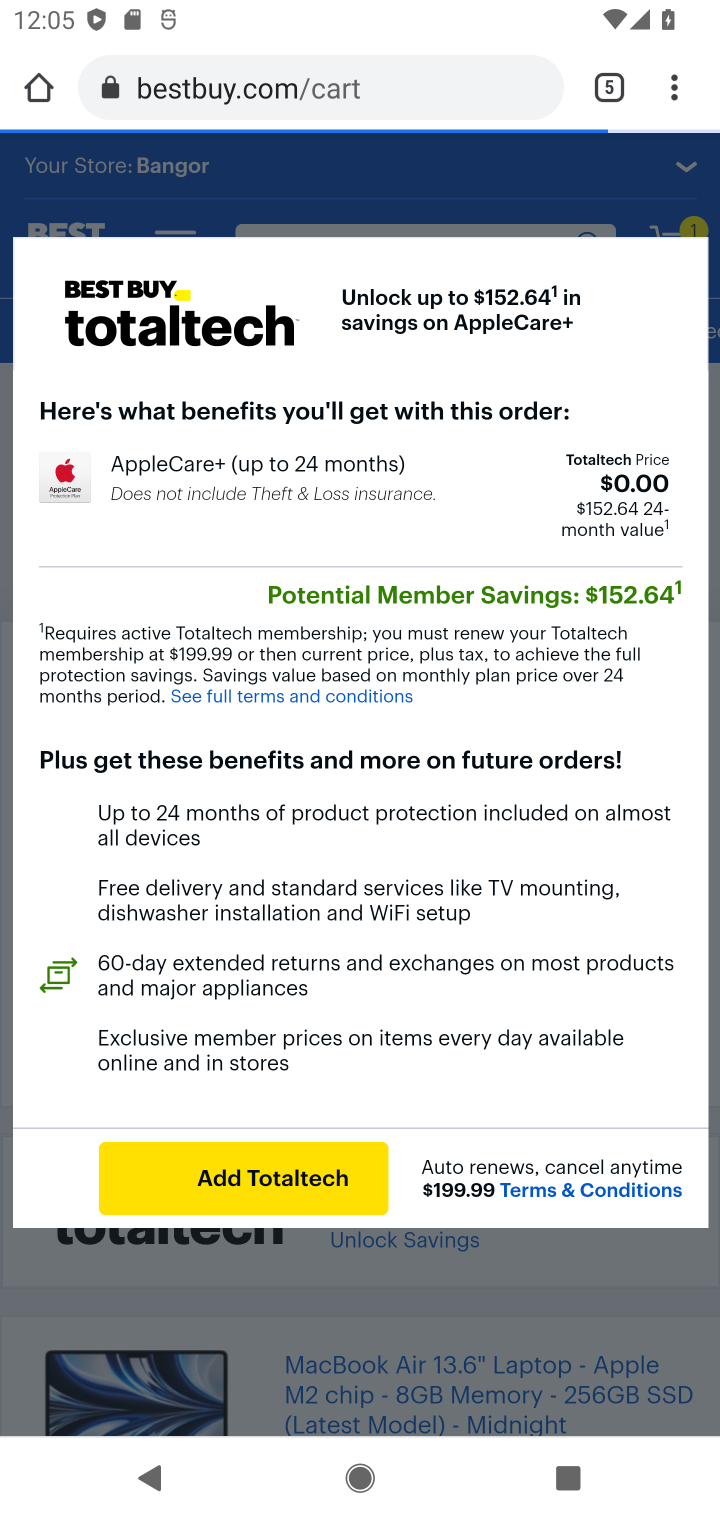
Step 25: click (461, 1019)
Your task to perform on an android device: Clear the shopping cart on bestbuy.com. Add macbook to the cart on bestbuy.com, then select checkout. Image 26: 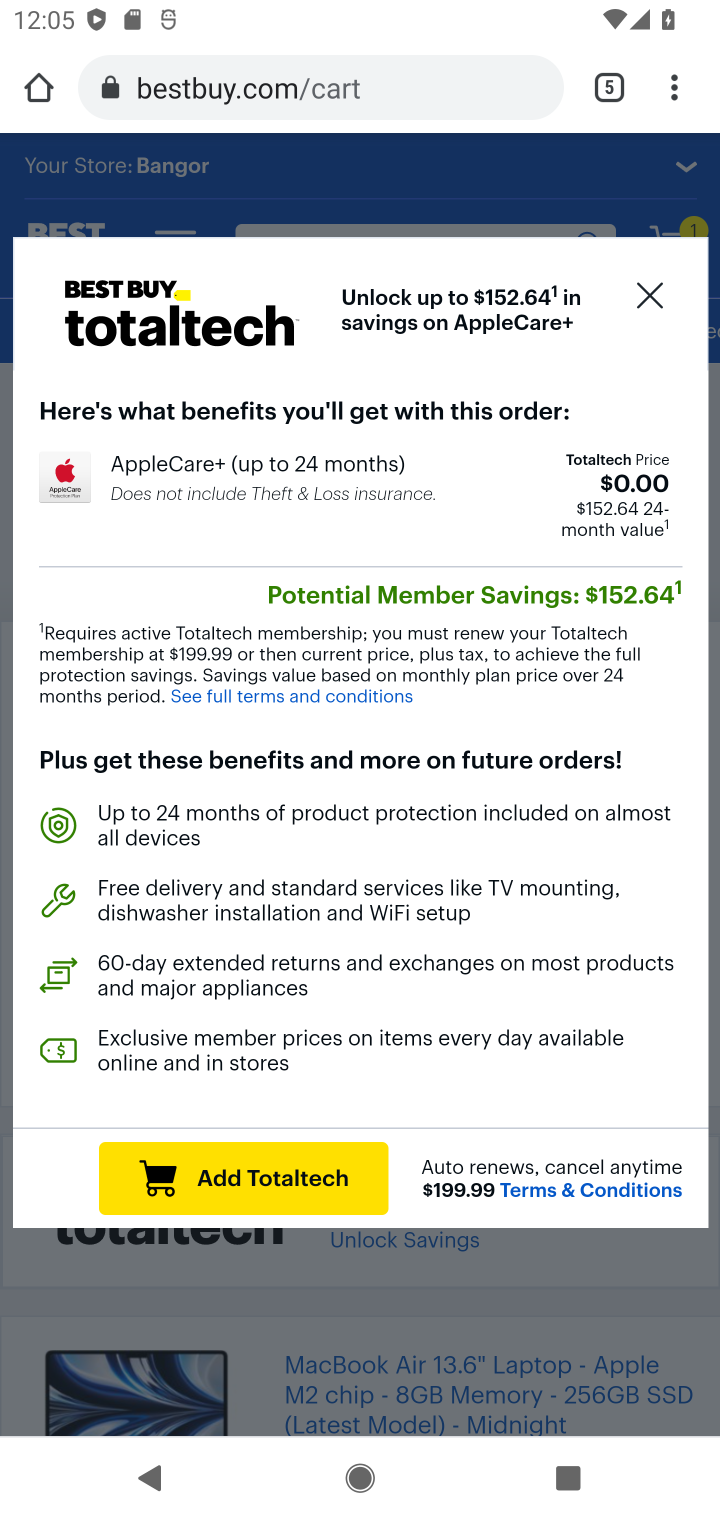
Step 26: click (637, 314)
Your task to perform on an android device: Clear the shopping cart on bestbuy.com. Add macbook to the cart on bestbuy.com, then select checkout. Image 27: 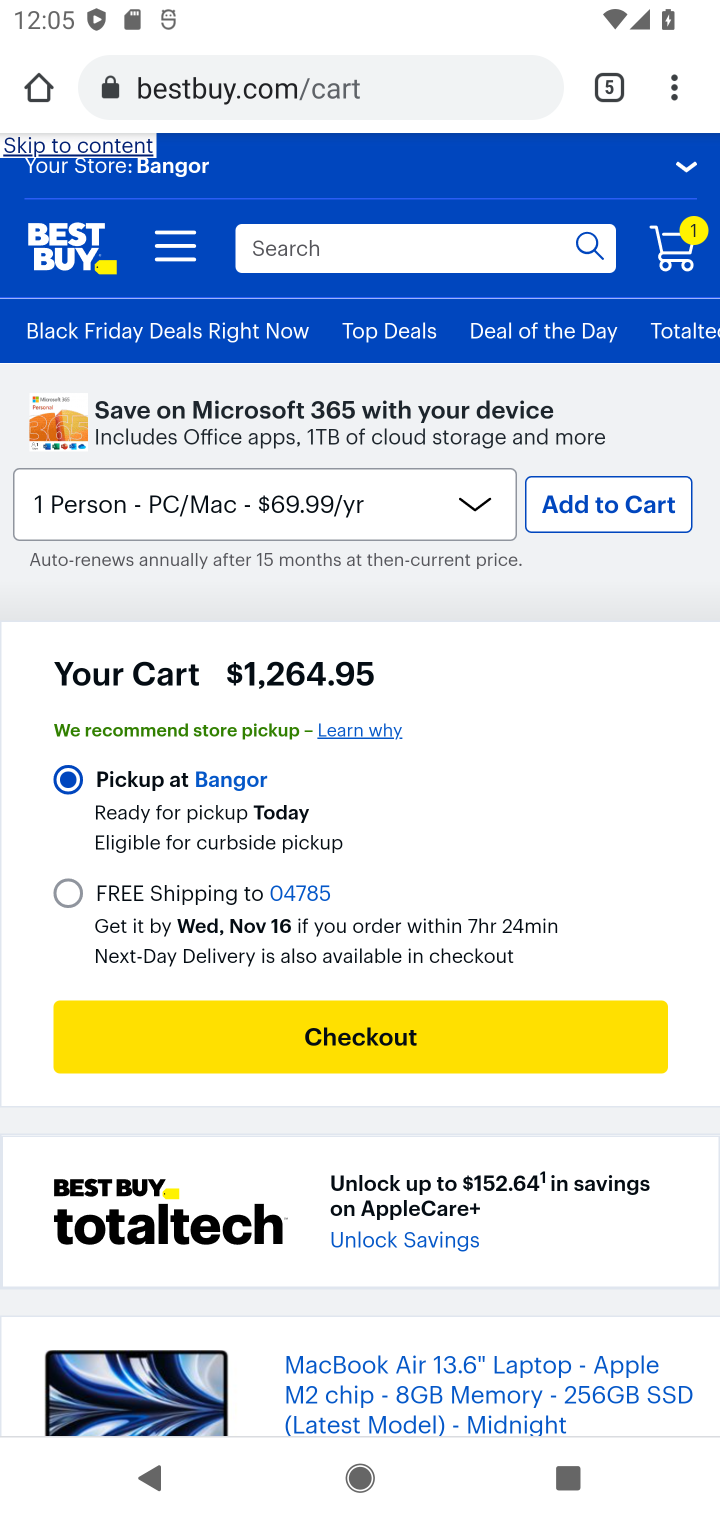
Step 27: click (315, 1034)
Your task to perform on an android device: Clear the shopping cart on bestbuy.com. Add macbook to the cart on bestbuy.com, then select checkout. Image 28: 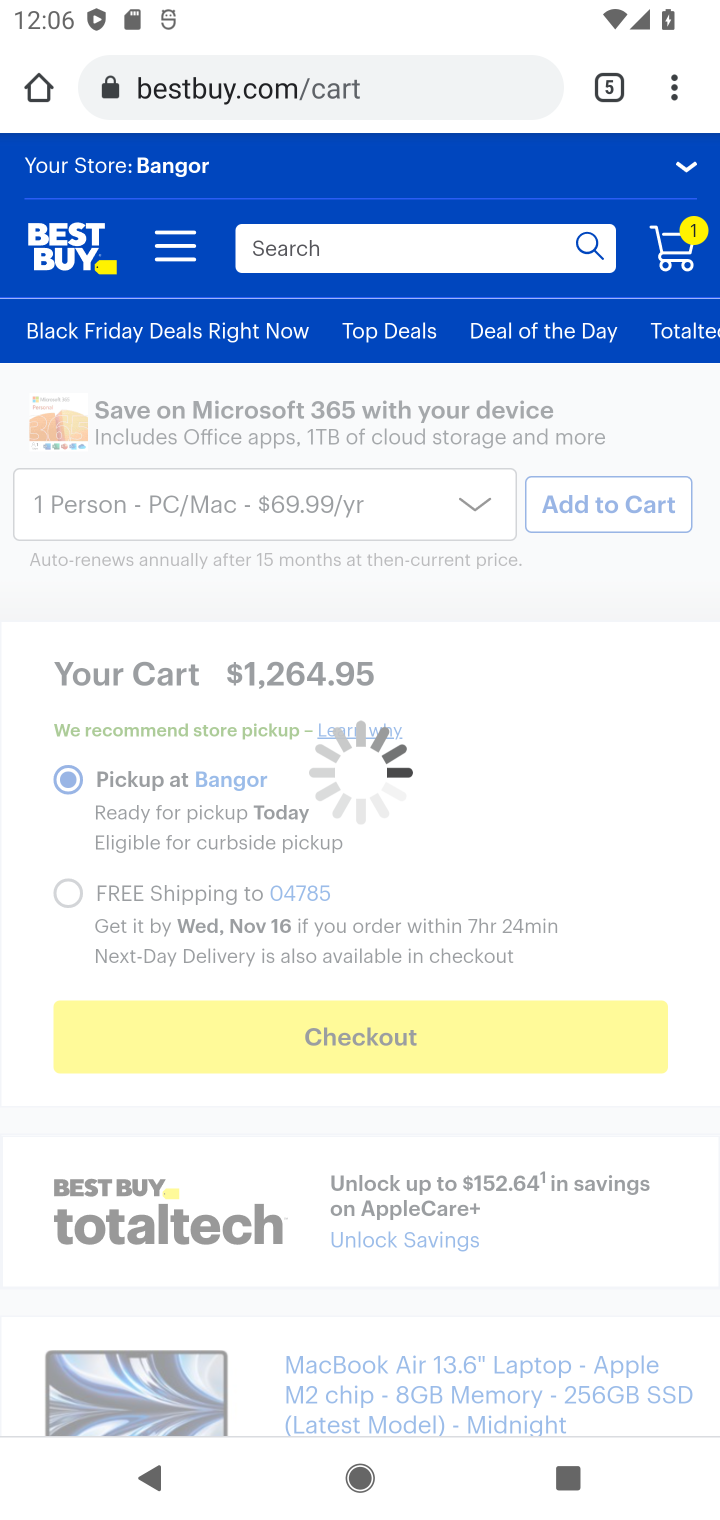
Step 28: task complete